Your task to perform on an android device: Open Wikipedia Image 0: 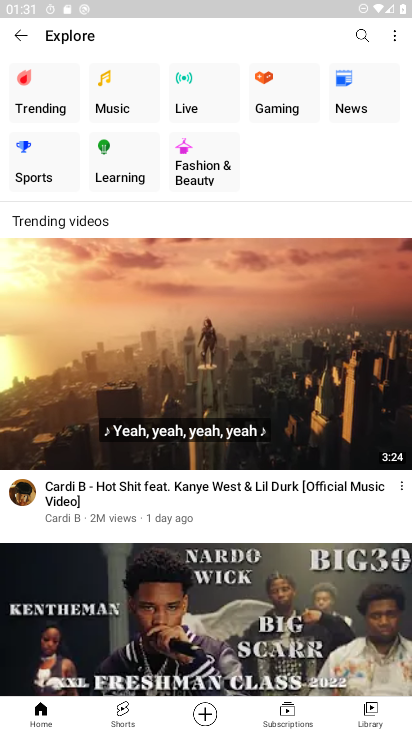
Step 0: press home button
Your task to perform on an android device: Open Wikipedia Image 1: 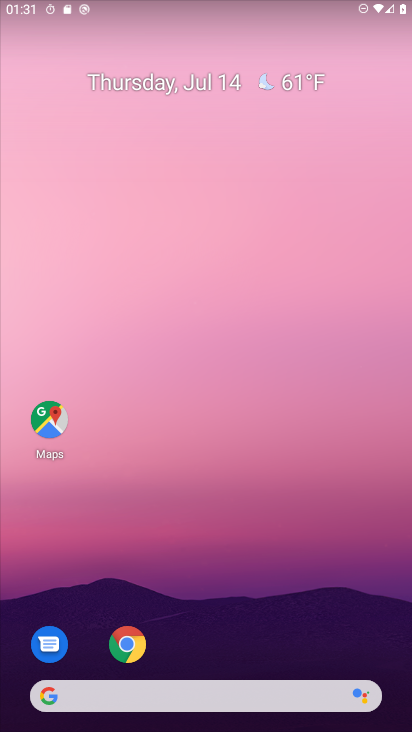
Step 1: drag from (239, 643) to (282, 172)
Your task to perform on an android device: Open Wikipedia Image 2: 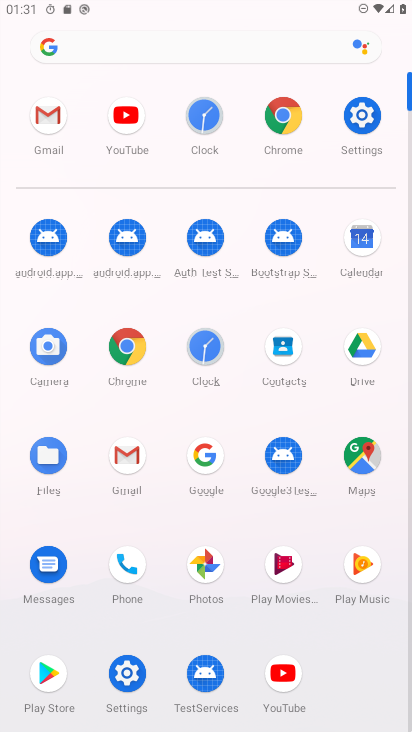
Step 2: click (288, 117)
Your task to perform on an android device: Open Wikipedia Image 3: 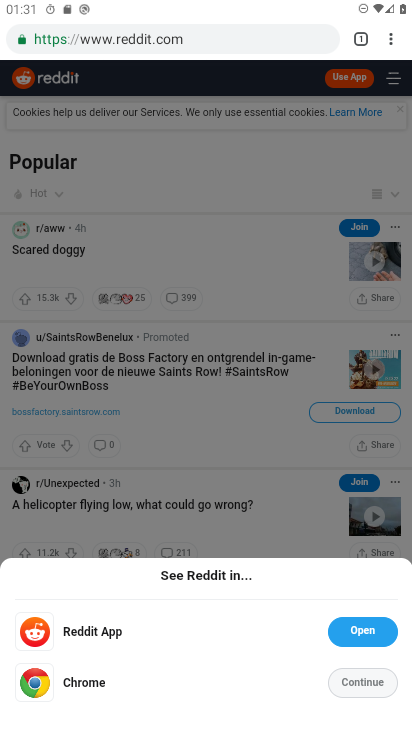
Step 3: click (141, 30)
Your task to perform on an android device: Open Wikipedia Image 4: 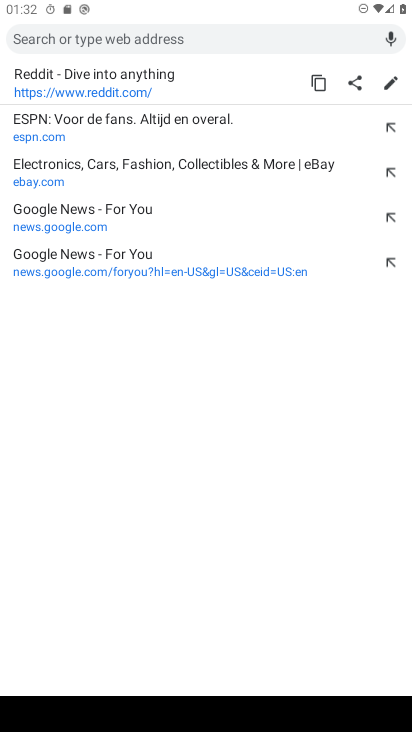
Step 4: type "wikipedia"
Your task to perform on an android device: Open Wikipedia Image 5: 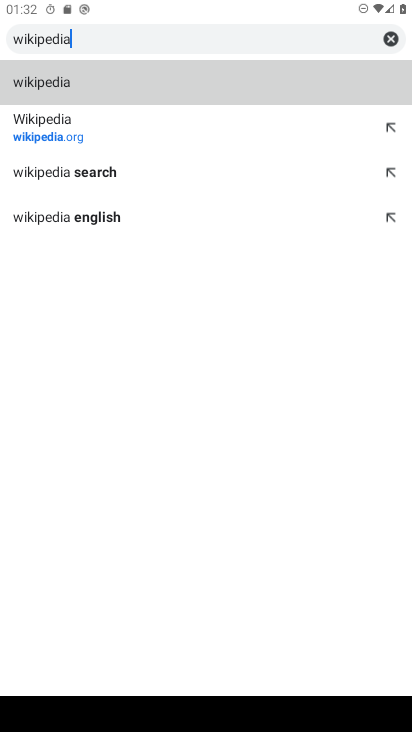
Step 5: click (24, 136)
Your task to perform on an android device: Open Wikipedia Image 6: 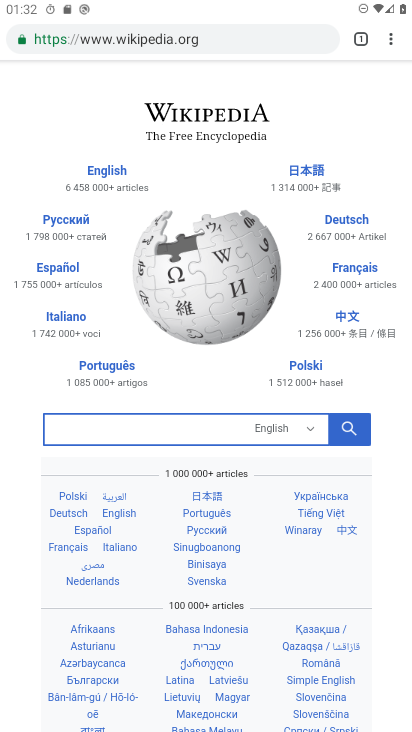
Step 6: task complete